Your task to perform on an android device: open device folders in google photos Image 0: 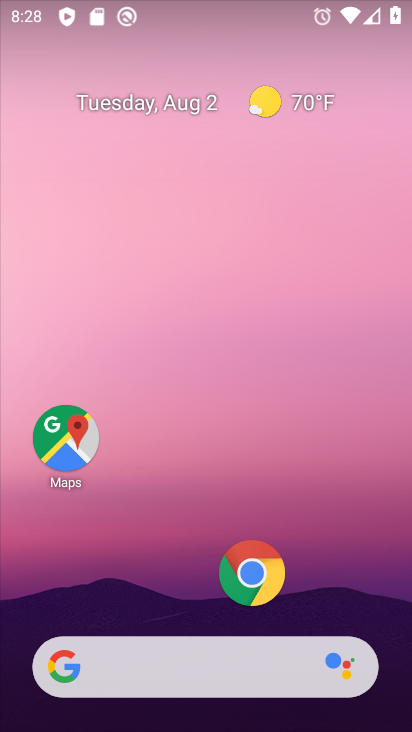
Step 0: press home button
Your task to perform on an android device: open device folders in google photos Image 1: 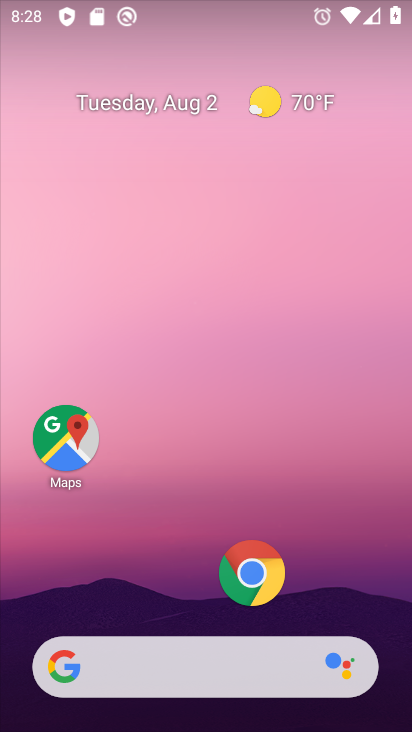
Step 1: drag from (187, 606) to (195, 81)
Your task to perform on an android device: open device folders in google photos Image 2: 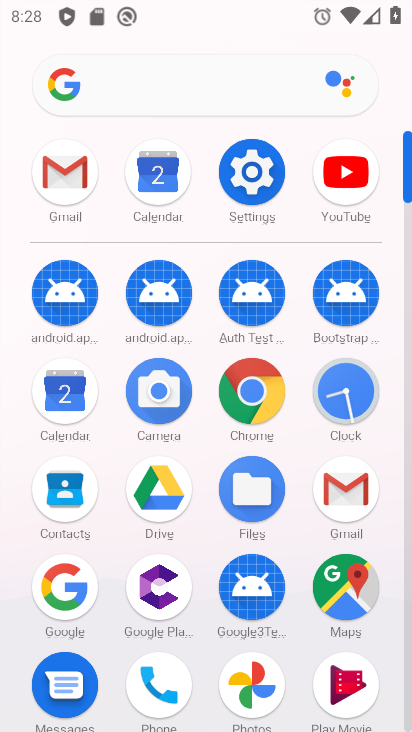
Step 2: click (254, 673)
Your task to perform on an android device: open device folders in google photos Image 3: 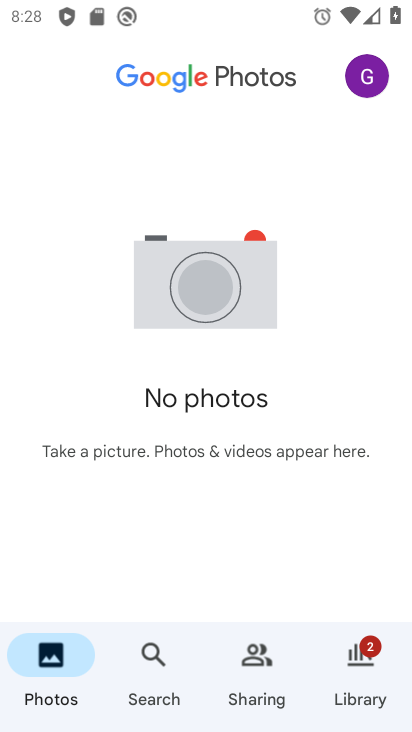
Step 3: click (163, 650)
Your task to perform on an android device: open device folders in google photos Image 4: 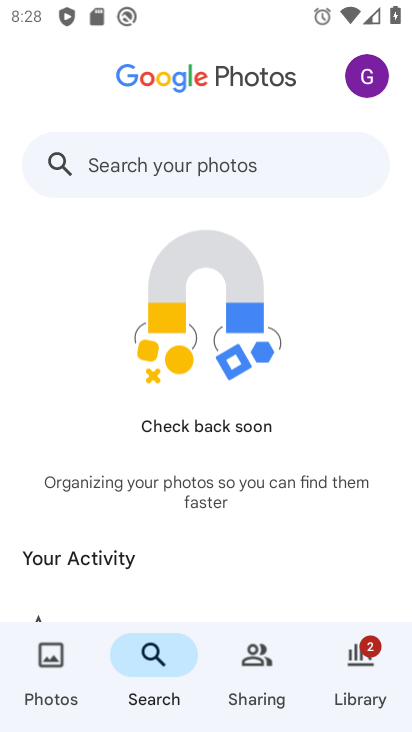
Step 4: click (115, 156)
Your task to perform on an android device: open device folders in google photos Image 5: 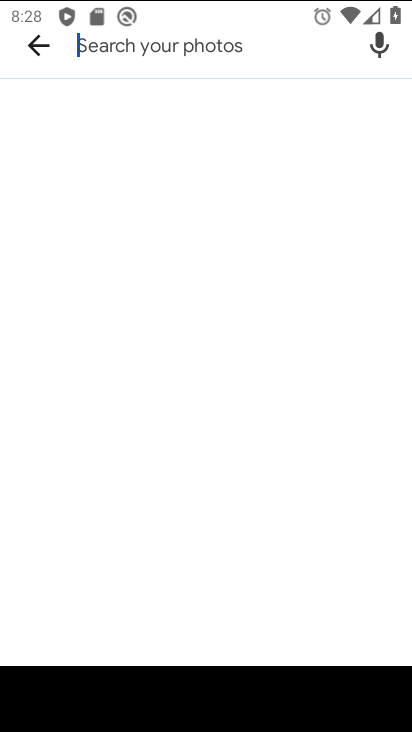
Step 5: type "device"
Your task to perform on an android device: open device folders in google photos Image 6: 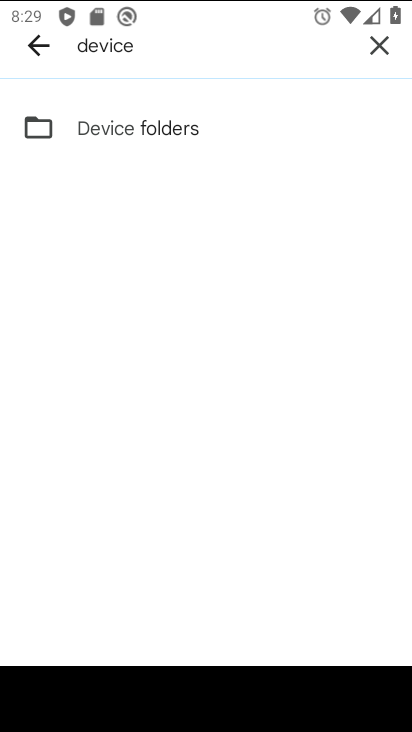
Step 6: click (153, 127)
Your task to perform on an android device: open device folders in google photos Image 7: 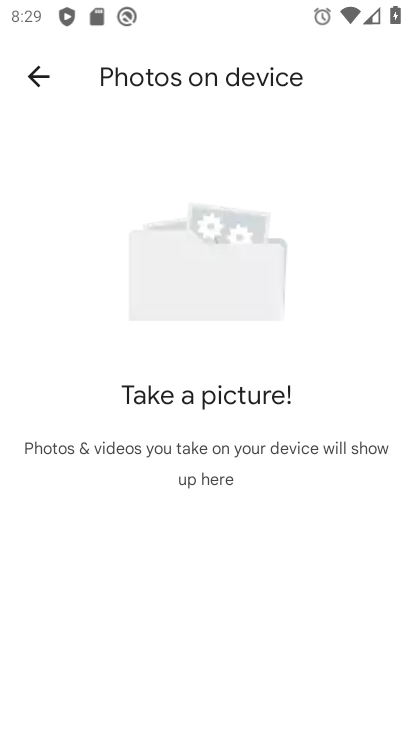
Step 7: task complete